Your task to perform on an android device: open a bookmark in the chrome app Image 0: 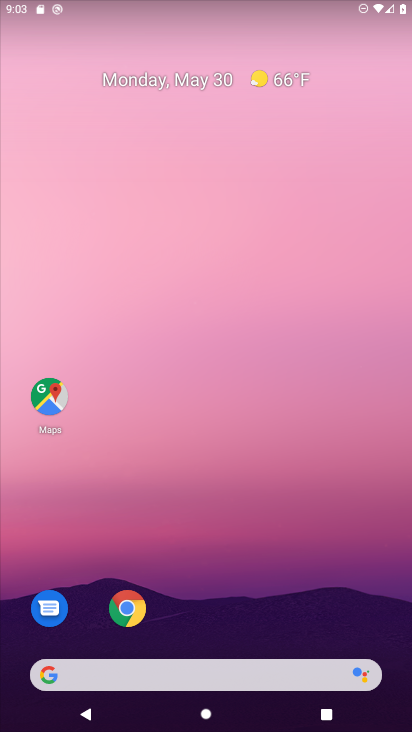
Step 0: click (128, 606)
Your task to perform on an android device: open a bookmark in the chrome app Image 1: 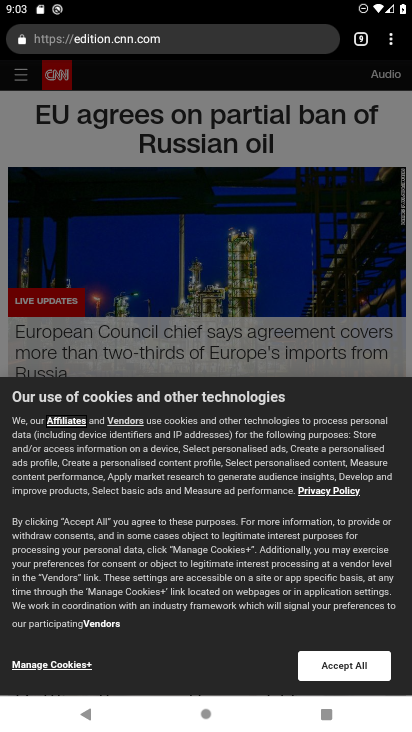
Step 1: click (389, 48)
Your task to perform on an android device: open a bookmark in the chrome app Image 2: 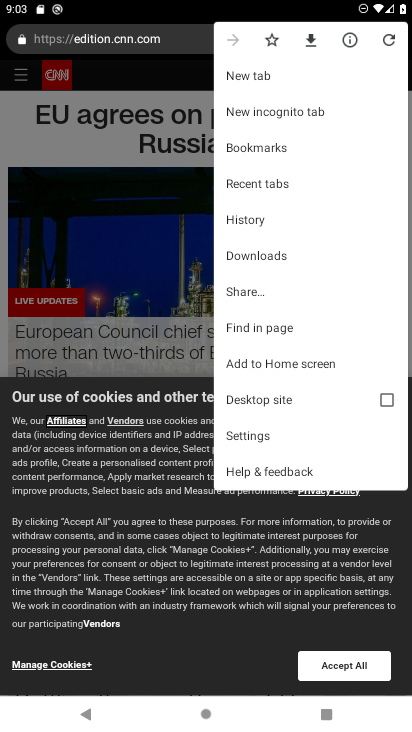
Step 2: click (257, 145)
Your task to perform on an android device: open a bookmark in the chrome app Image 3: 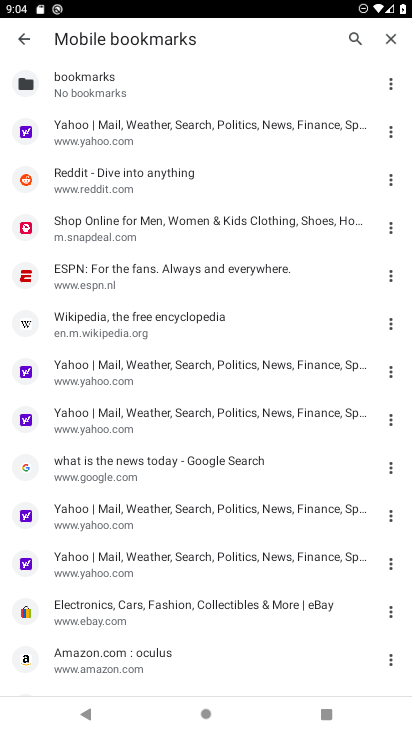
Step 3: click (173, 119)
Your task to perform on an android device: open a bookmark in the chrome app Image 4: 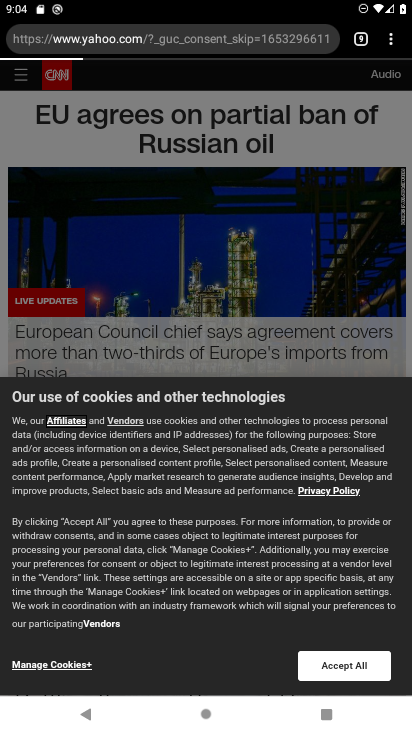
Step 4: task complete